Your task to perform on an android device: change notification settings in the gmail app Image 0: 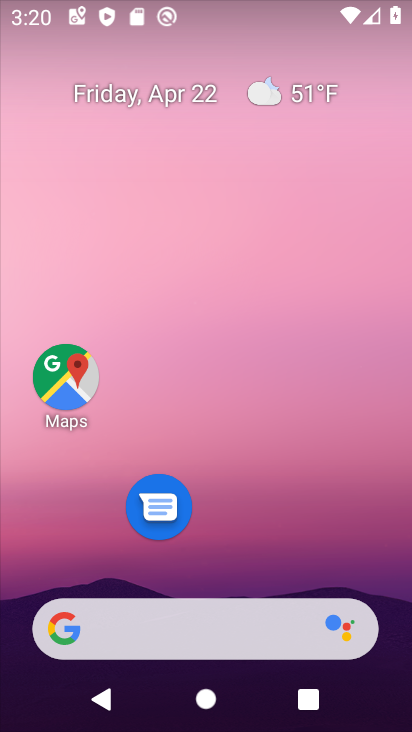
Step 0: drag from (152, 455) to (201, 89)
Your task to perform on an android device: change notification settings in the gmail app Image 1: 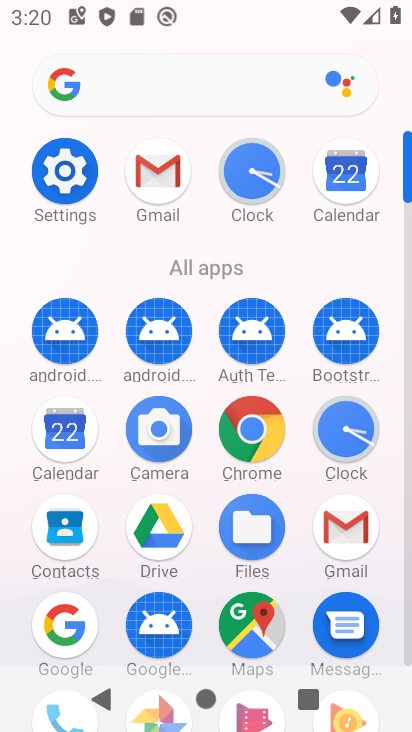
Step 1: click (161, 174)
Your task to perform on an android device: change notification settings in the gmail app Image 2: 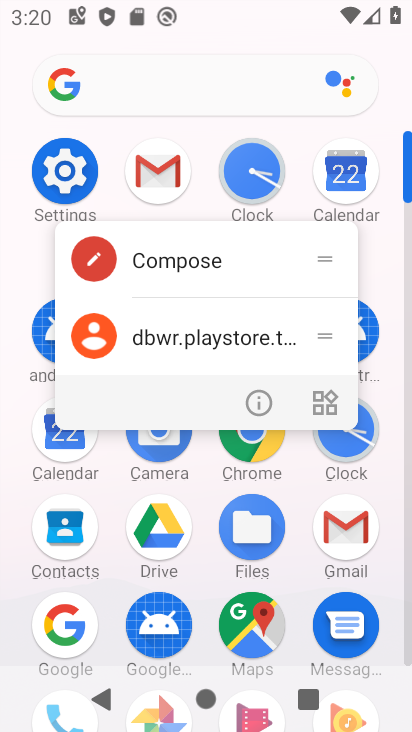
Step 2: click (252, 397)
Your task to perform on an android device: change notification settings in the gmail app Image 3: 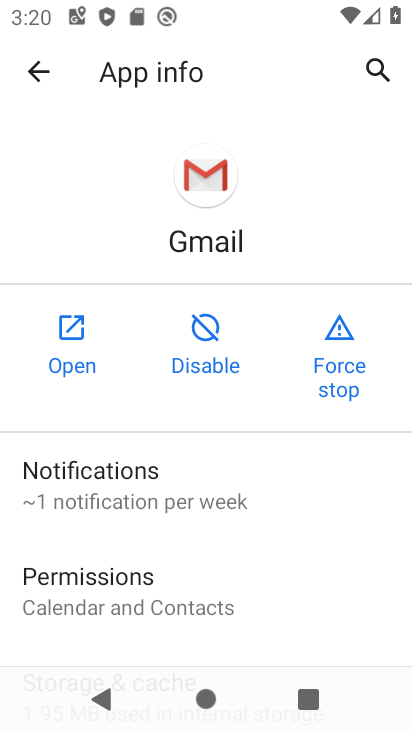
Step 3: click (151, 479)
Your task to perform on an android device: change notification settings in the gmail app Image 4: 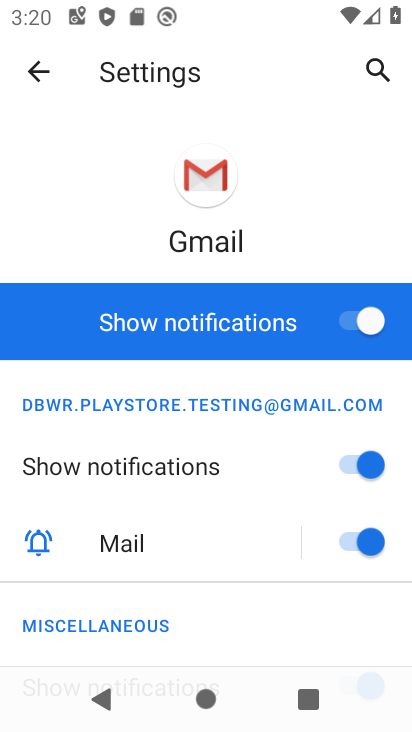
Step 4: drag from (157, 634) to (257, 86)
Your task to perform on an android device: change notification settings in the gmail app Image 5: 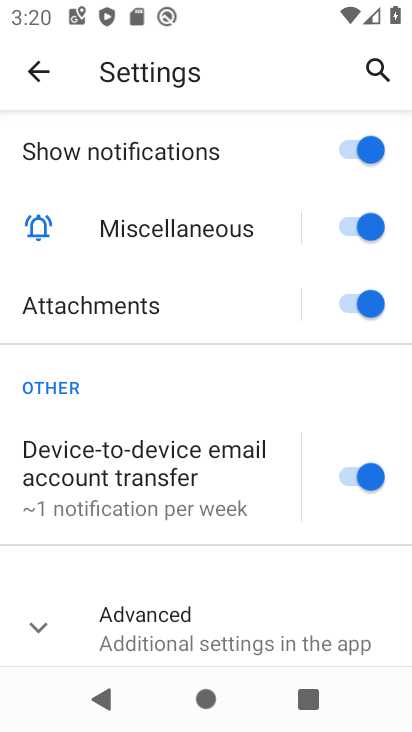
Step 5: drag from (262, 292) to (225, 520)
Your task to perform on an android device: change notification settings in the gmail app Image 6: 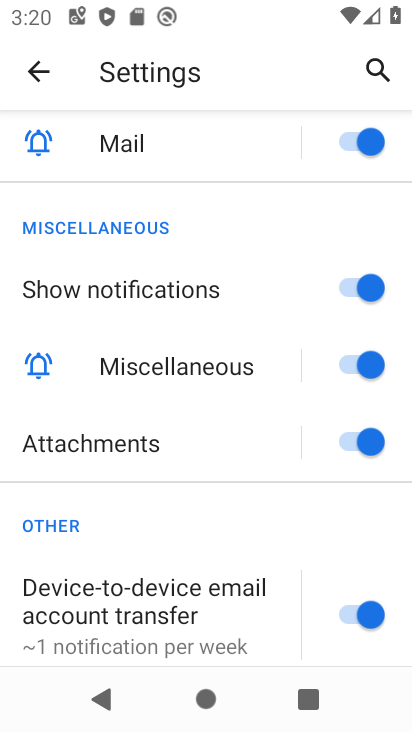
Step 6: click (364, 281)
Your task to perform on an android device: change notification settings in the gmail app Image 7: 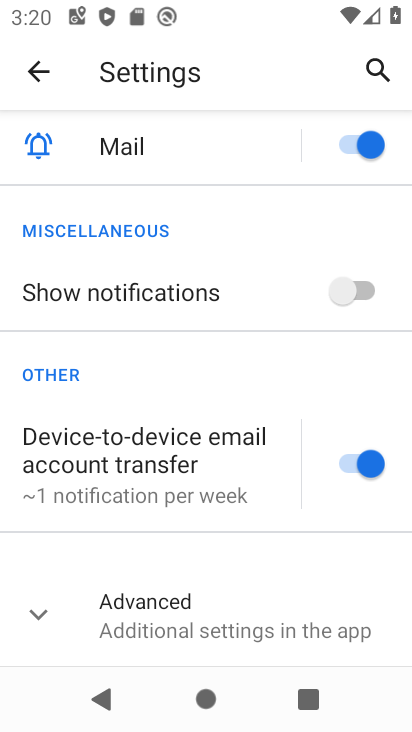
Step 7: task complete